Your task to perform on an android device: Turn on the flashlight Image 0: 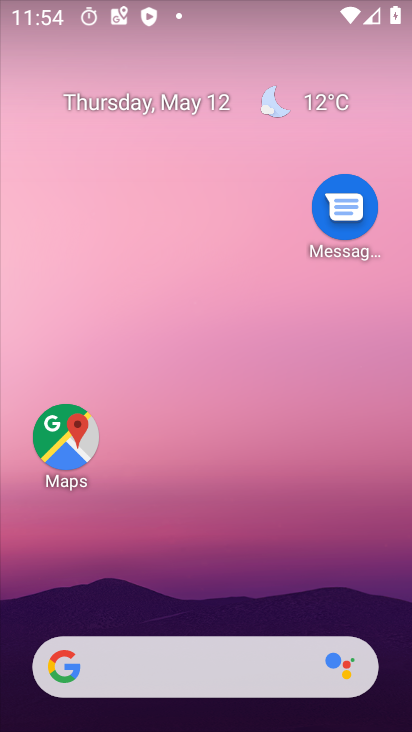
Step 0: drag from (258, 6) to (263, 677)
Your task to perform on an android device: Turn on the flashlight Image 1: 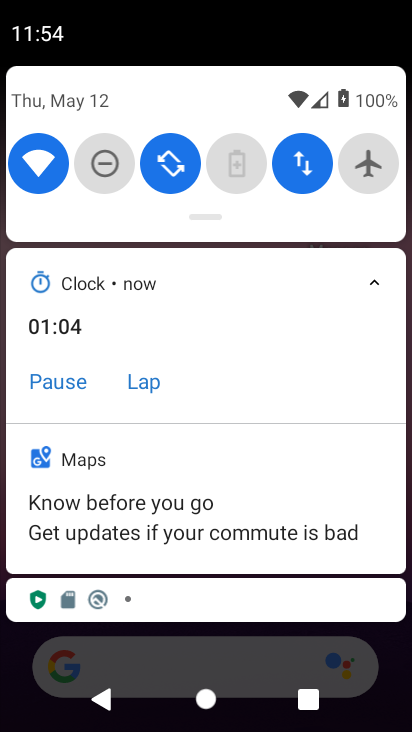
Step 1: task complete